Your task to perform on an android device: Go to Google Image 0: 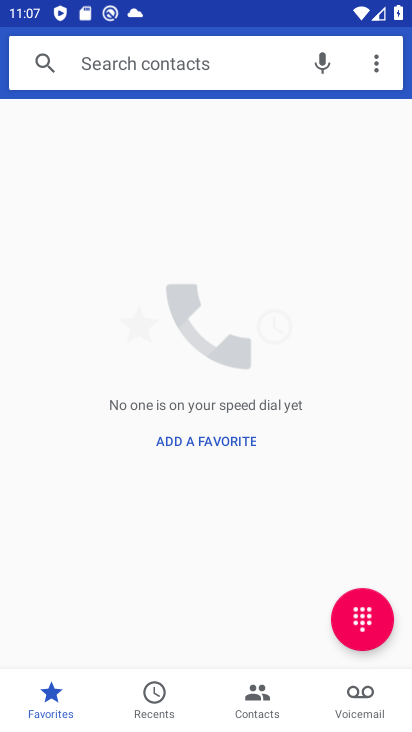
Step 0: press back button
Your task to perform on an android device: Go to Google Image 1: 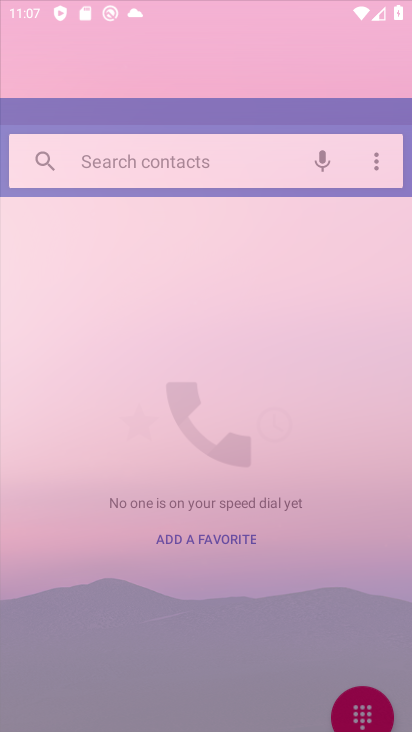
Step 1: press back button
Your task to perform on an android device: Go to Google Image 2: 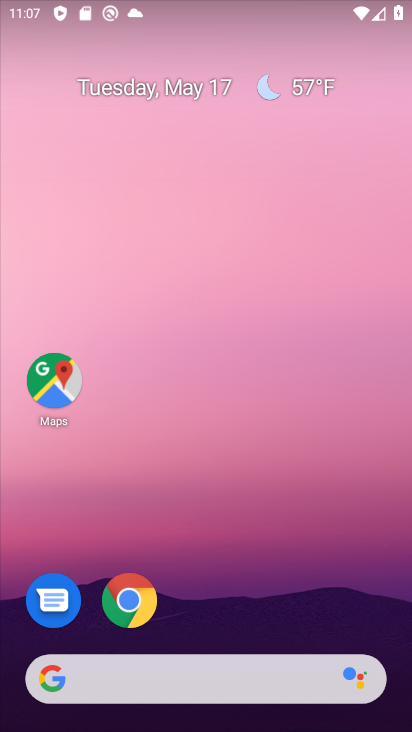
Step 2: drag from (330, 655) to (224, 30)
Your task to perform on an android device: Go to Google Image 3: 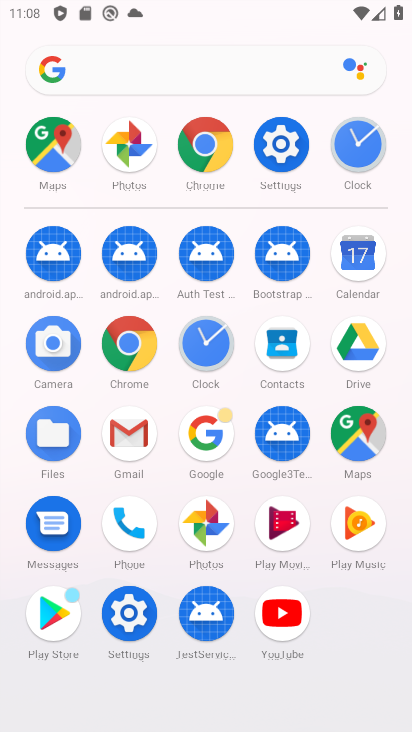
Step 3: click (198, 439)
Your task to perform on an android device: Go to Google Image 4: 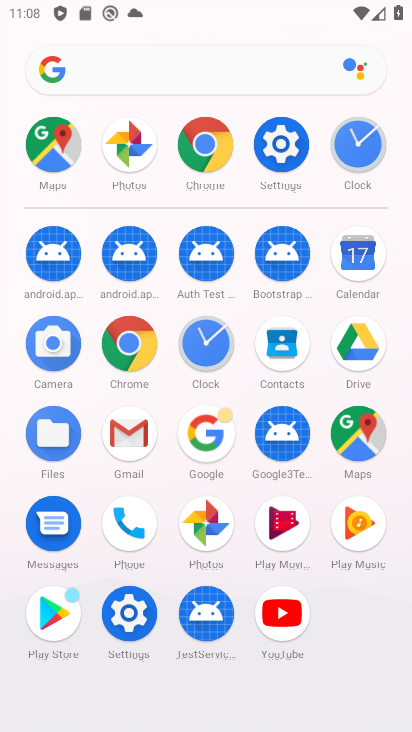
Step 4: click (197, 438)
Your task to perform on an android device: Go to Google Image 5: 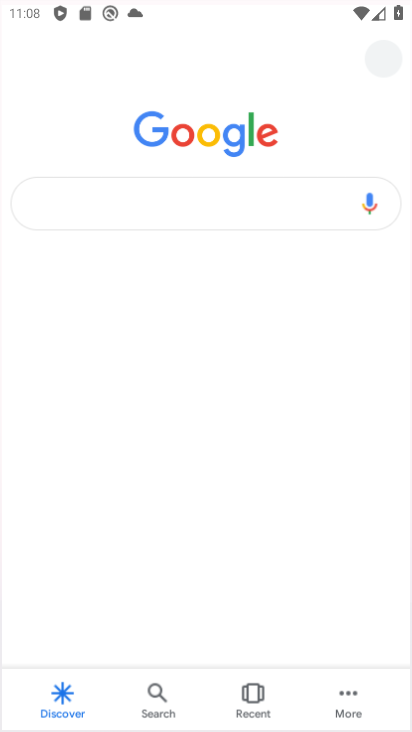
Step 5: click (203, 436)
Your task to perform on an android device: Go to Google Image 6: 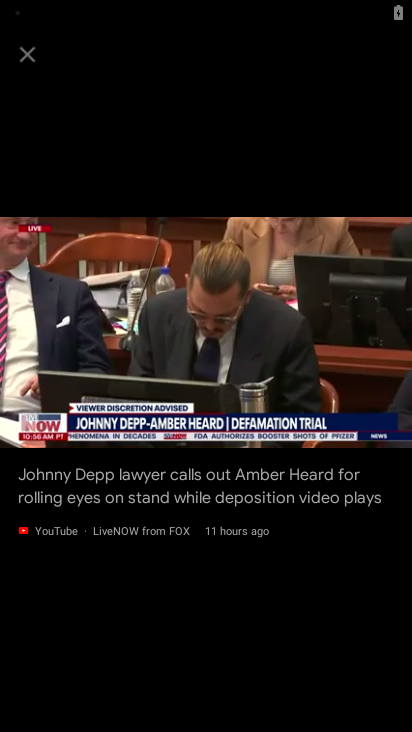
Step 6: task complete